Your task to perform on an android device: Add "razer deathadder" to the cart on amazon.com Image 0: 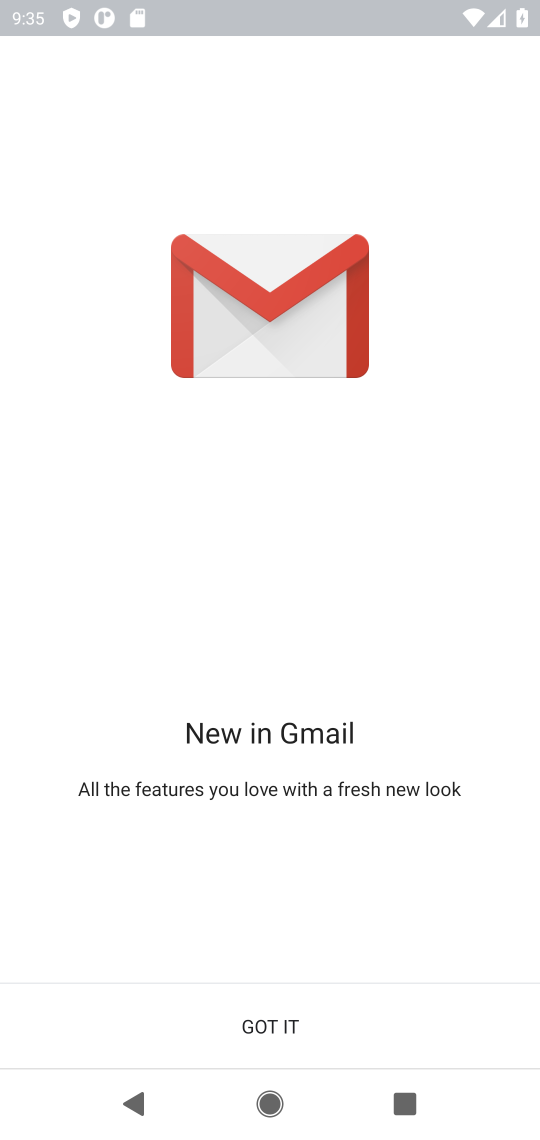
Step 0: press home button
Your task to perform on an android device: Add "razer deathadder" to the cart on amazon.com Image 1: 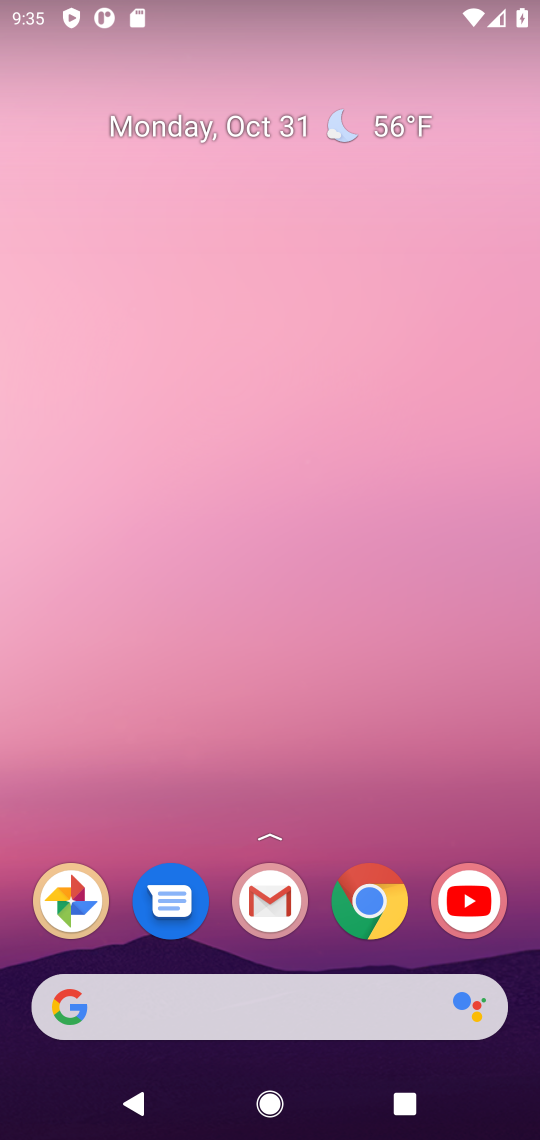
Step 1: drag from (224, 962) to (253, 345)
Your task to perform on an android device: Add "razer deathadder" to the cart on amazon.com Image 2: 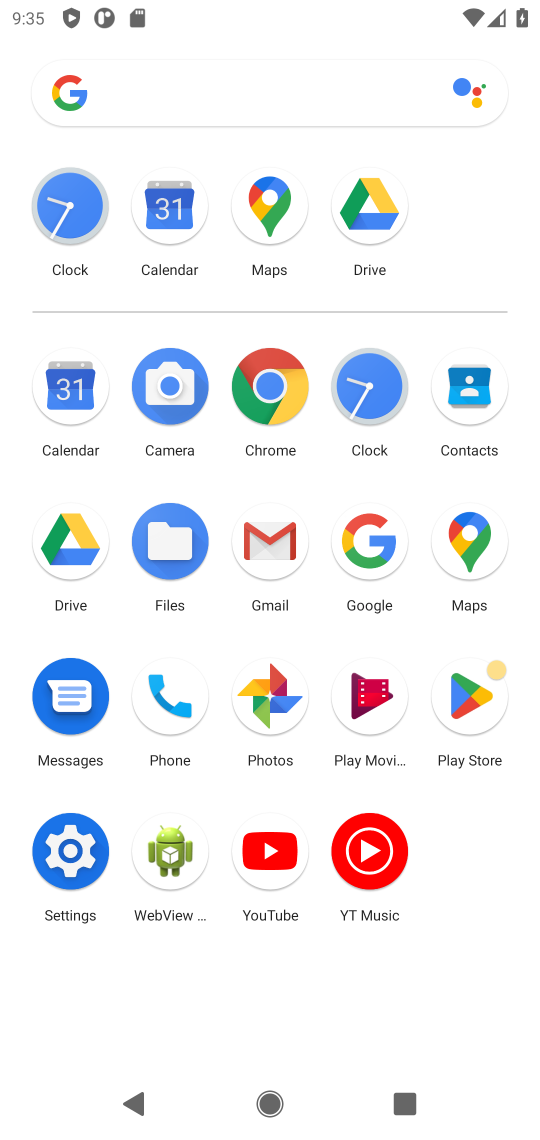
Step 2: click (358, 538)
Your task to perform on an android device: Add "razer deathadder" to the cart on amazon.com Image 3: 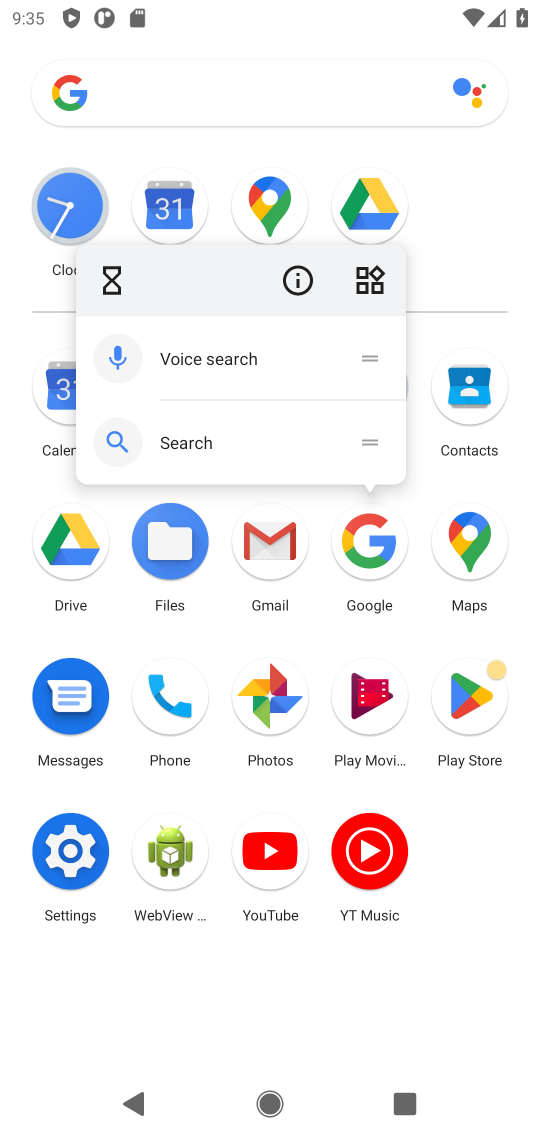
Step 3: click (369, 534)
Your task to perform on an android device: Add "razer deathadder" to the cart on amazon.com Image 4: 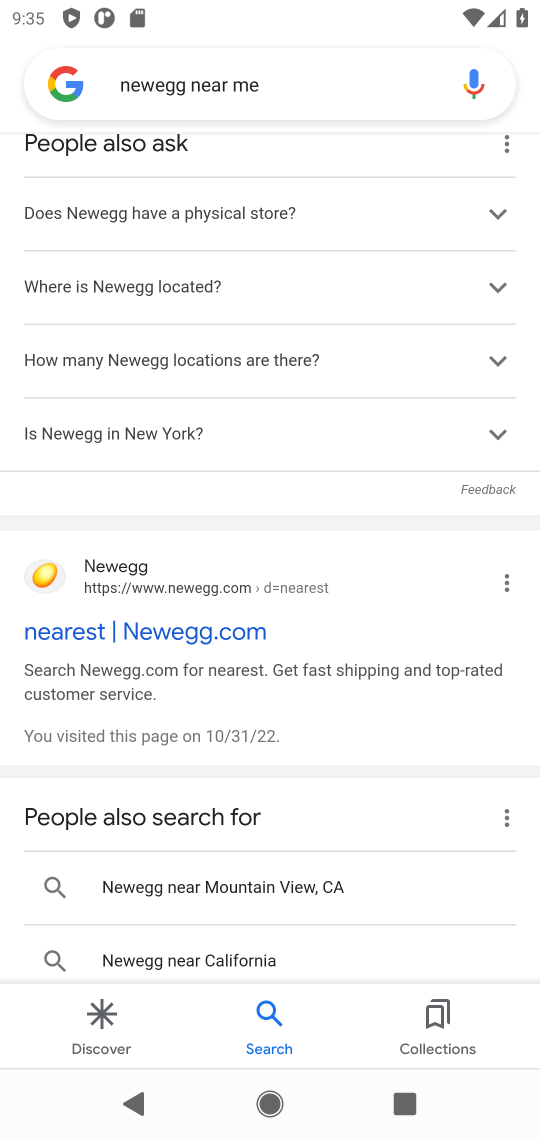
Step 4: click (242, 74)
Your task to perform on an android device: Add "razer deathadder" to the cart on amazon.com Image 5: 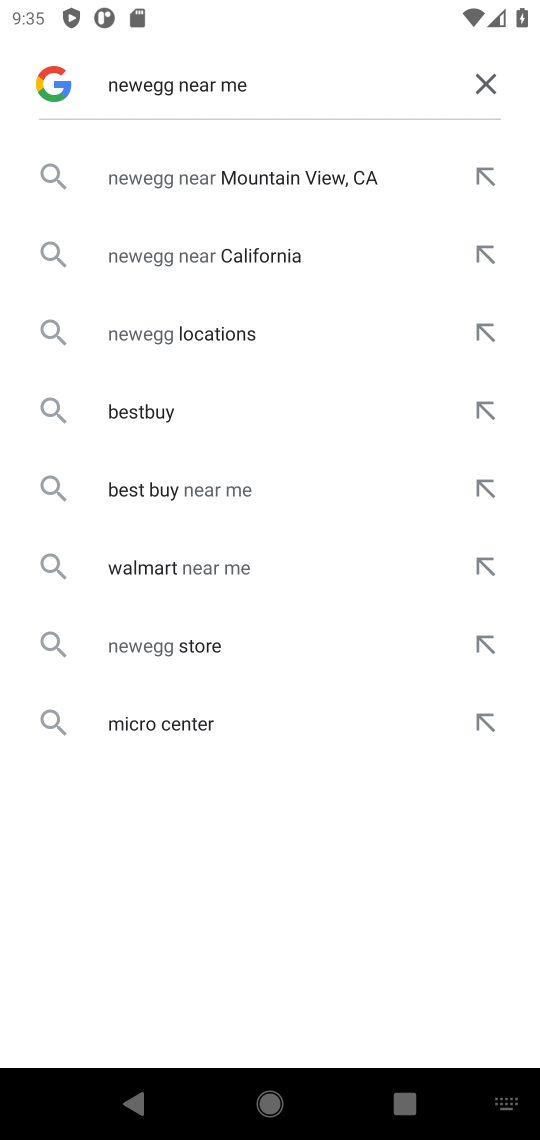
Step 5: click (471, 78)
Your task to perform on an android device: Add "razer deathadder" to the cart on amazon.com Image 6: 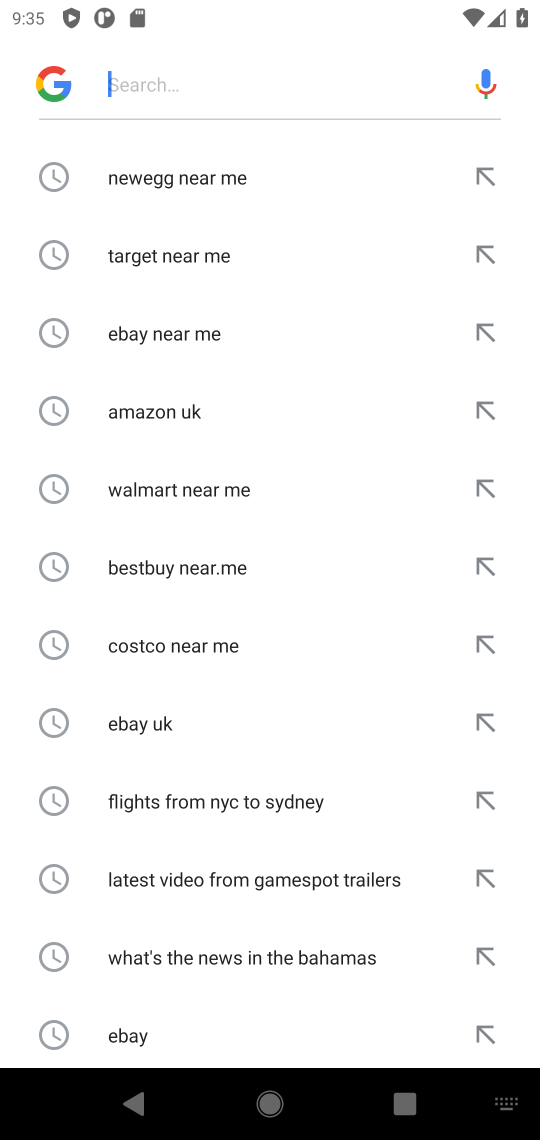
Step 6: click (141, 80)
Your task to perform on an android device: Add "razer deathadder" to the cart on amazon.com Image 7: 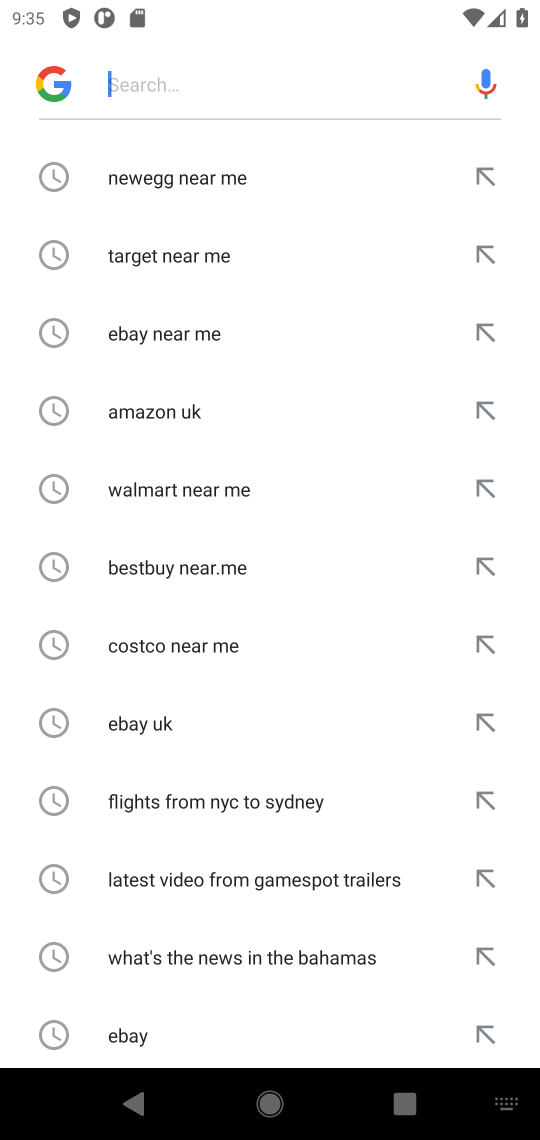
Step 7: type "amazon "
Your task to perform on an android device: Add "razer deathadder" to the cart on amazon.com Image 8: 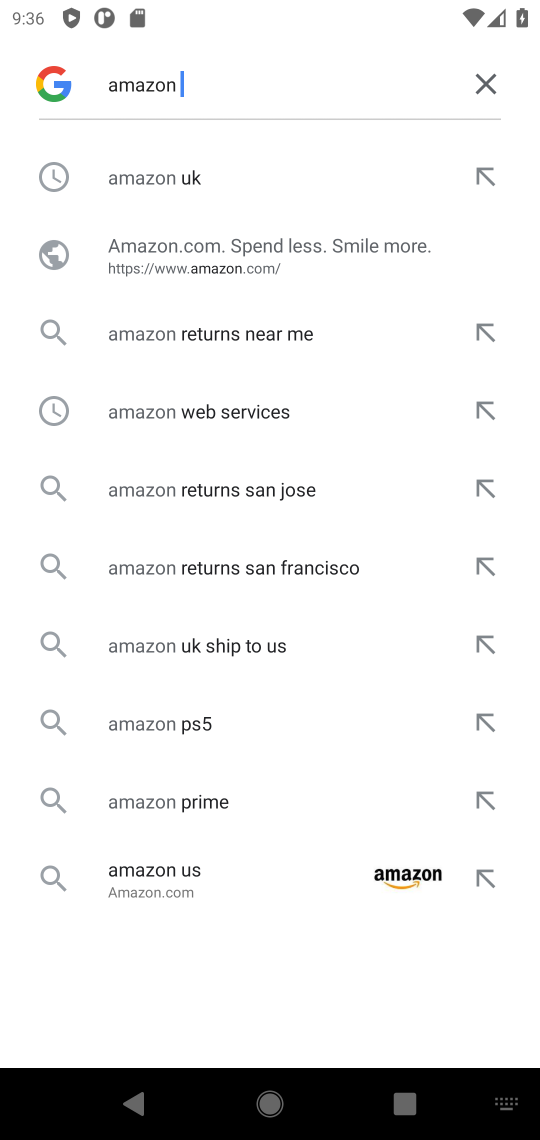
Step 8: click (136, 147)
Your task to perform on an android device: Add "razer deathadder" to the cart on amazon.com Image 9: 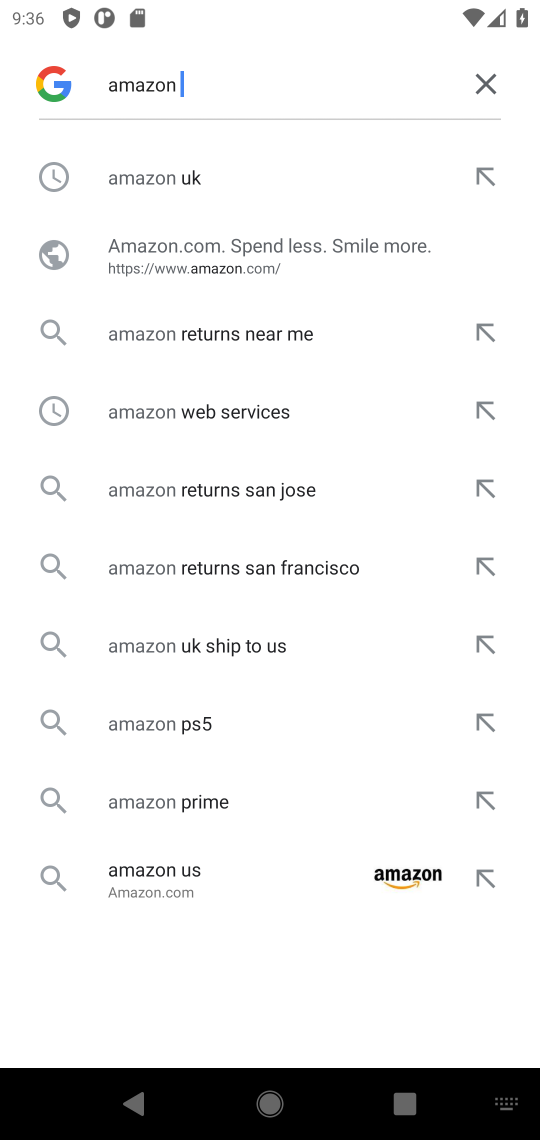
Step 9: click (133, 168)
Your task to perform on an android device: Add "razer deathadder" to the cart on amazon.com Image 10: 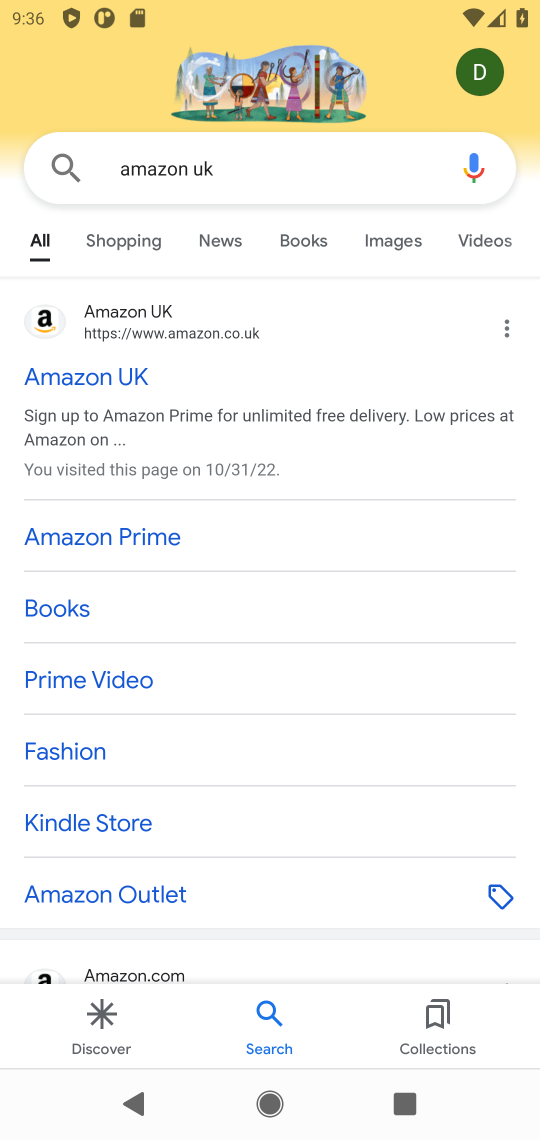
Step 10: click (92, 380)
Your task to perform on an android device: Add "razer deathadder" to the cart on amazon.com Image 11: 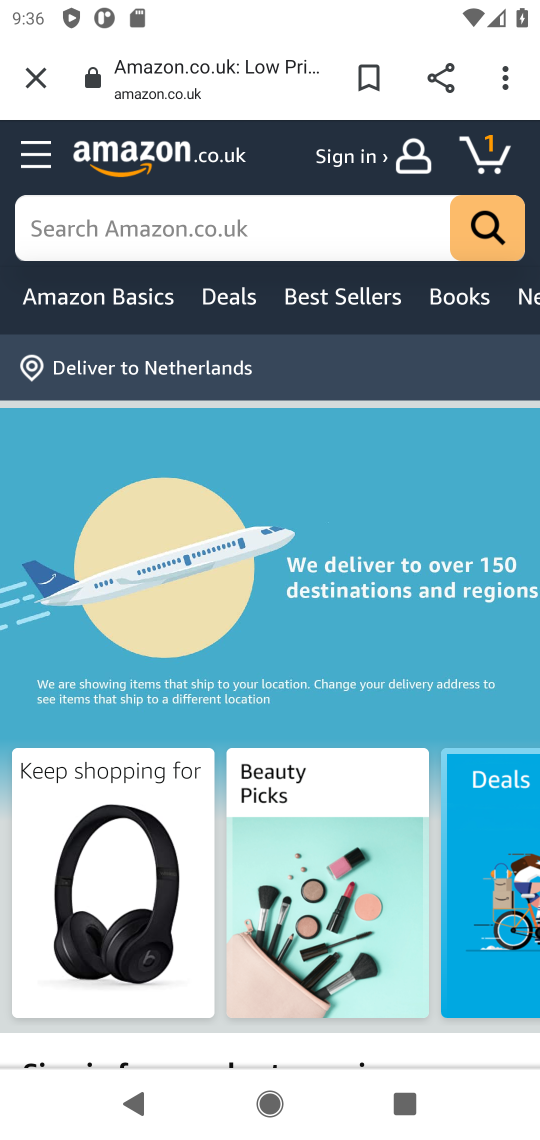
Step 11: click (215, 227)
Your task to perform on an android device: Add "razer deathadder" to the cart on amazon.com Image 12: 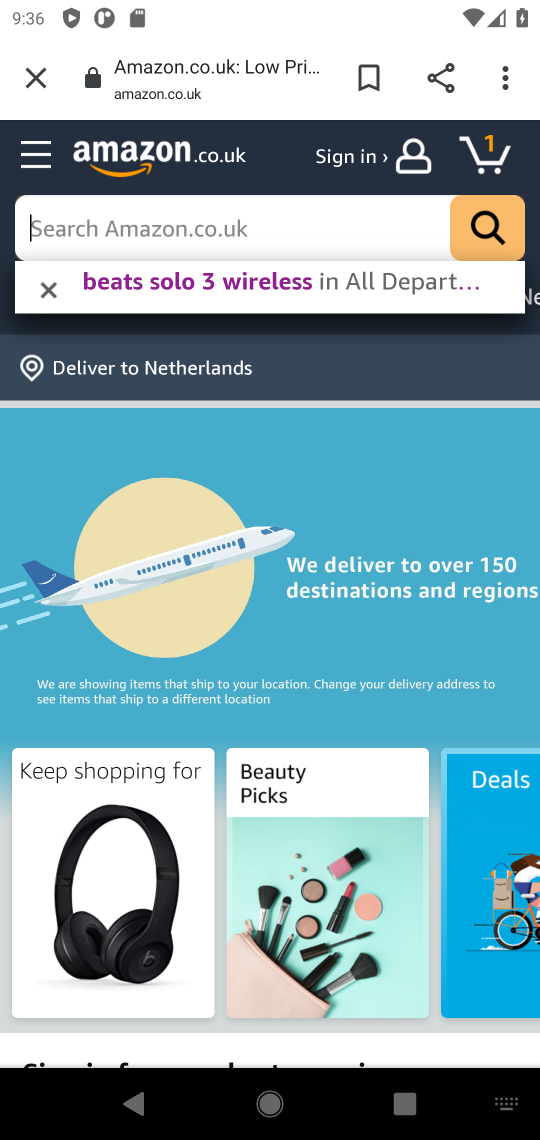
Step 12: type "razer deathadder "
Your task to perform on an android device: Add "razer deathadder" to the cart on amazon.com Image 13: 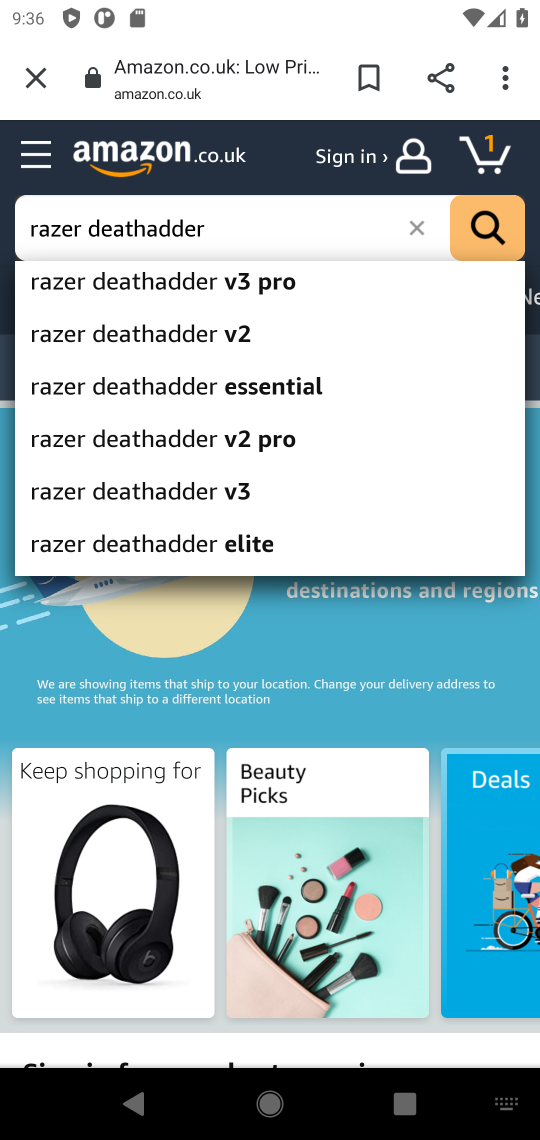
Step 13: click (144, 279)
Your task to perform on an android device: Add "razer deathadder" to the cart on amazon.com Image 14: 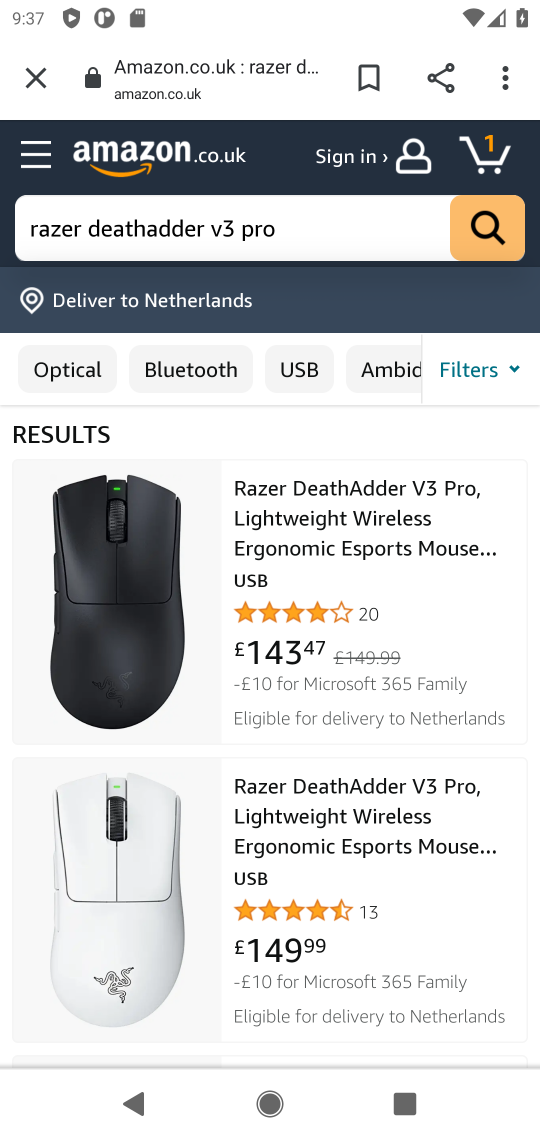
Step 14: click (411, 487)
Your task to perform on an android device: Add "razer deathadder" to the cart on amazon.com Image 15: 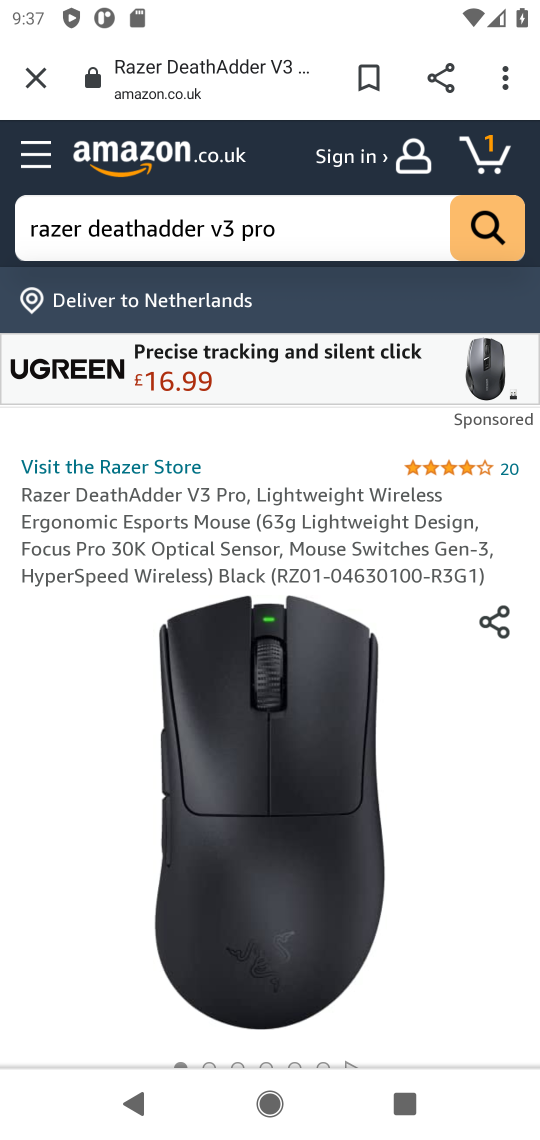
Step 15: drag from (374, 861) to (320, 231)
Your task to perform on an android device: Add "razer deathadder" to the cart on amazon.com Image 16: 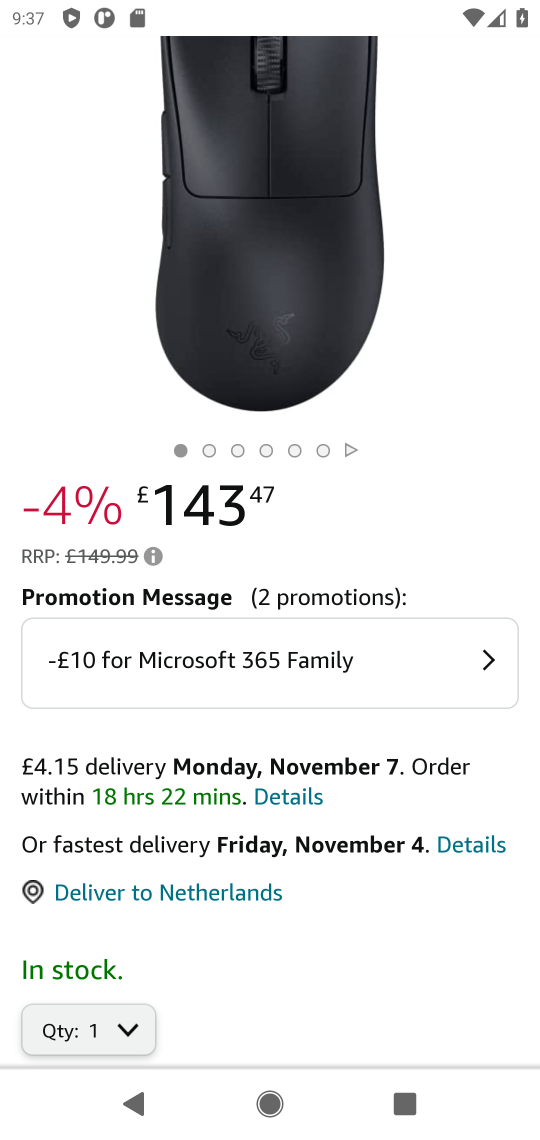
Step 16: drag from (274, 962) to (267, 497)
Your task to perform on an android device: Add "razer deathadder" to the cart on amazon.com Image 17: 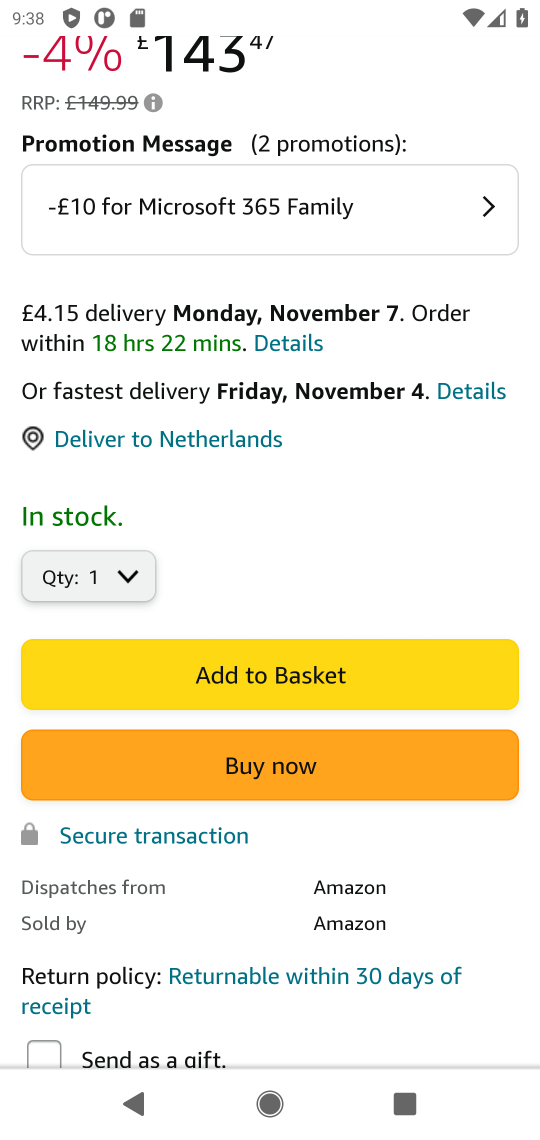
Step 17: click (282, 667)
Your task to perform on an android device: Add "razer deathadder" to the cart on amazon.com Image 18: 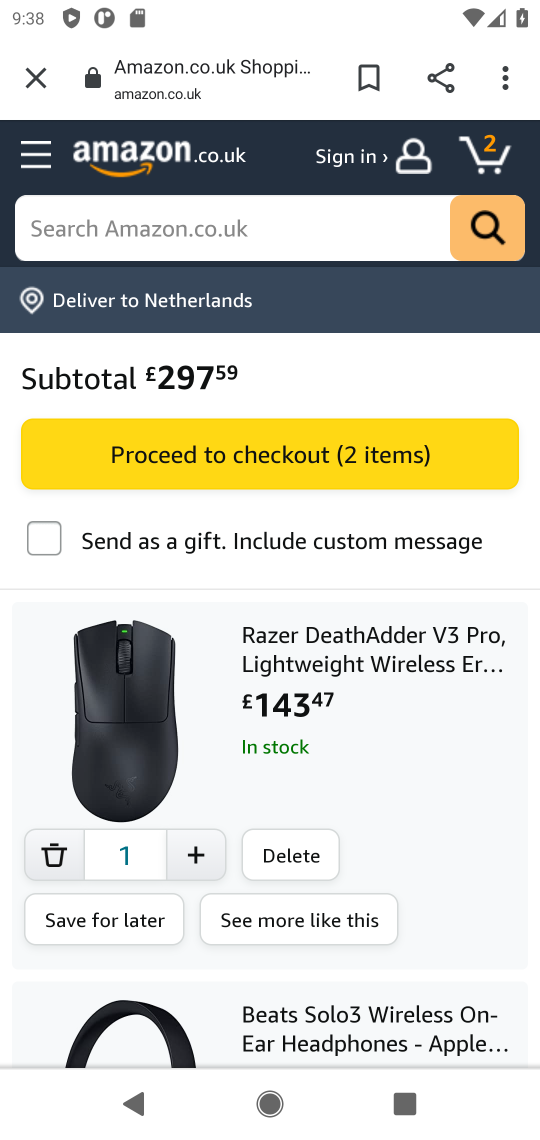
Step 18: task complete